Your task to perform on an android device: What's on my calendar tomorrow? Image 0: 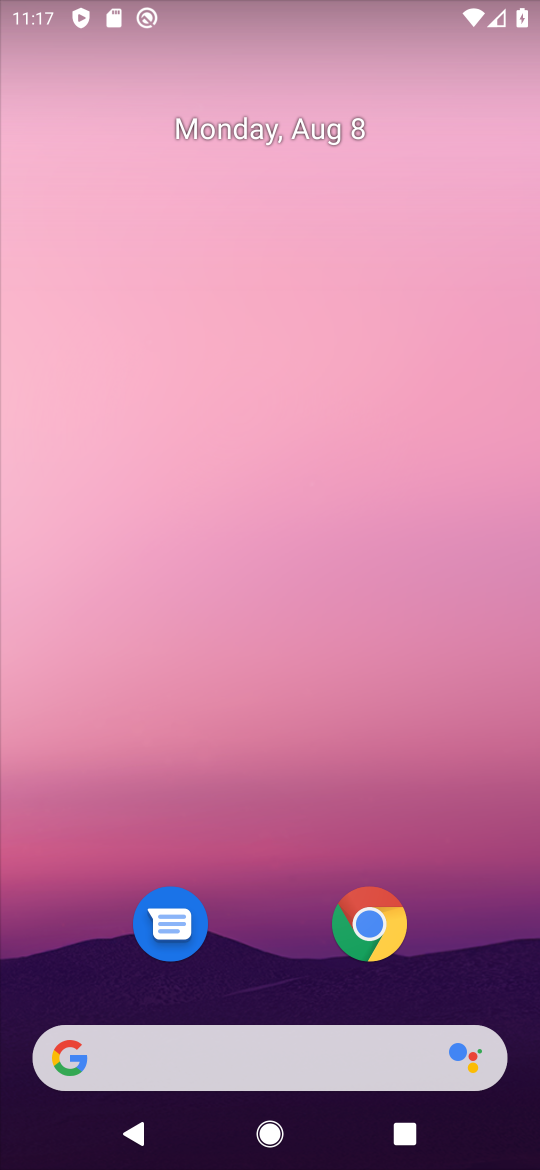
Step 0: drag from (295, 1004) to (218, 126)
Your task to perform on an android device: What's on my calendar tomorrow? Image 1: 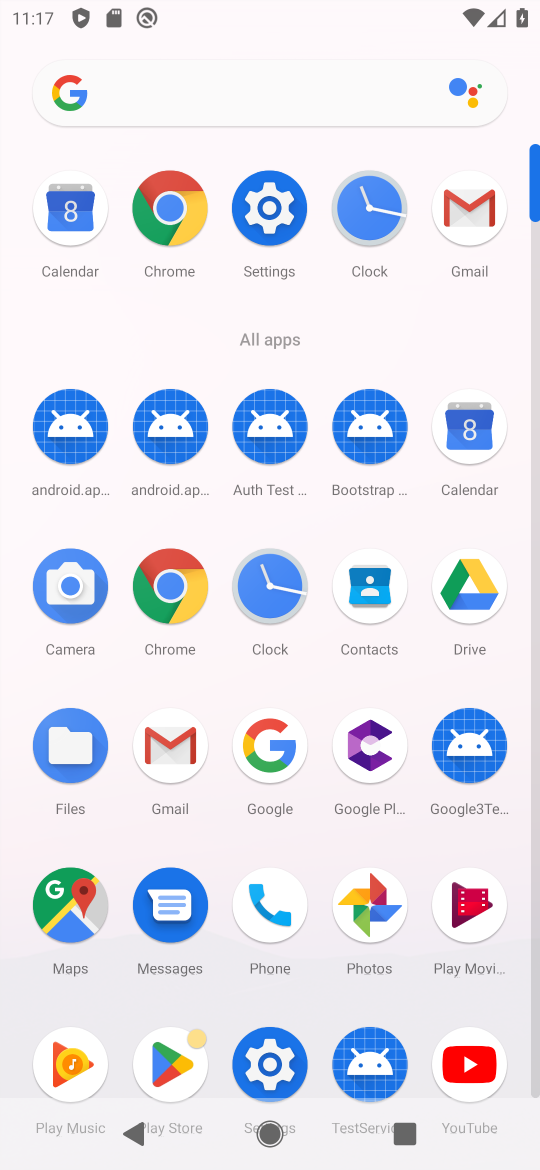
Step 1: click (458, 441)
Your task to perform on an android device: What's on my calendar tomorrow? Image 2: 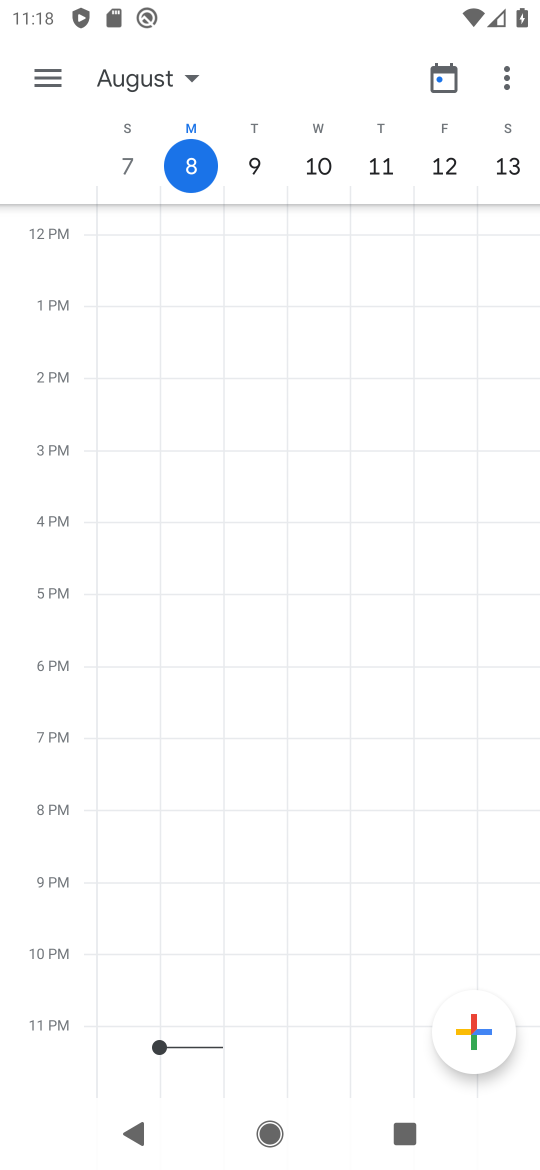
Step 2: click (243, 168)
Your task to perform on an android device: What's on my calendar tomorrow? Image 3: 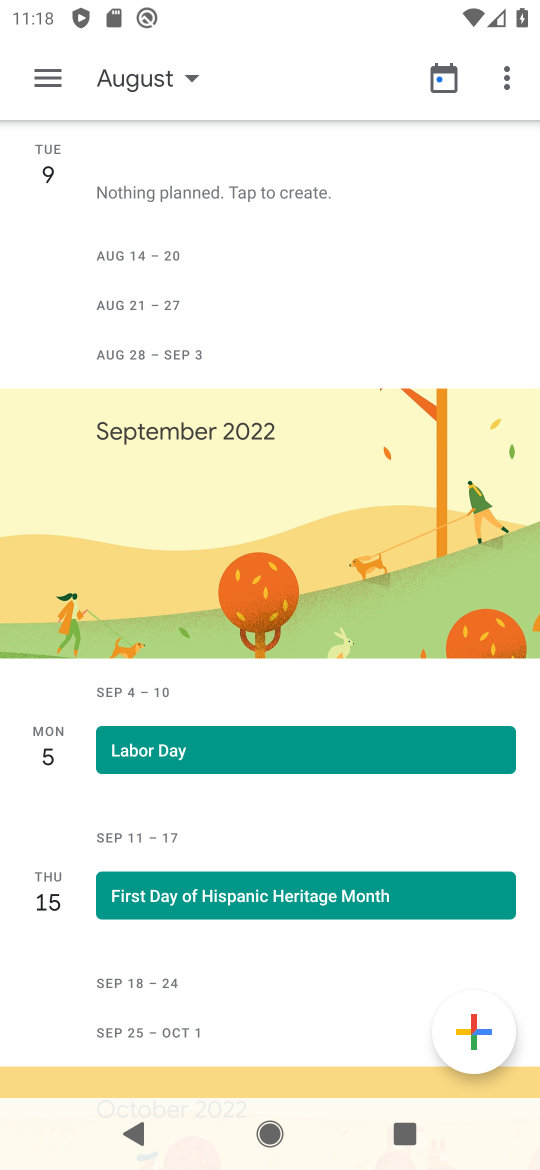
Step 3: task complete